Your task to perform on an android device: Toggle the flashlight Image 0: 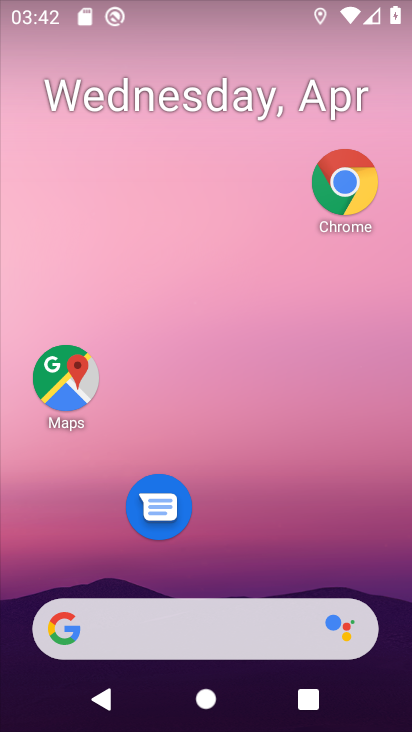
Step 0: click (280, 343)
Your task to perform on an android device: Toggle the flashlight Image 1: 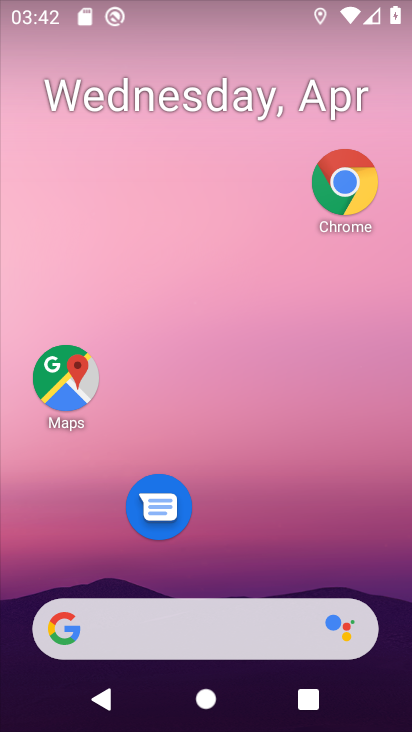
Step 1: drag from (236, 529) to (385, 5)
Your task to perform on an android device: Toggle the flashlight Image 2: 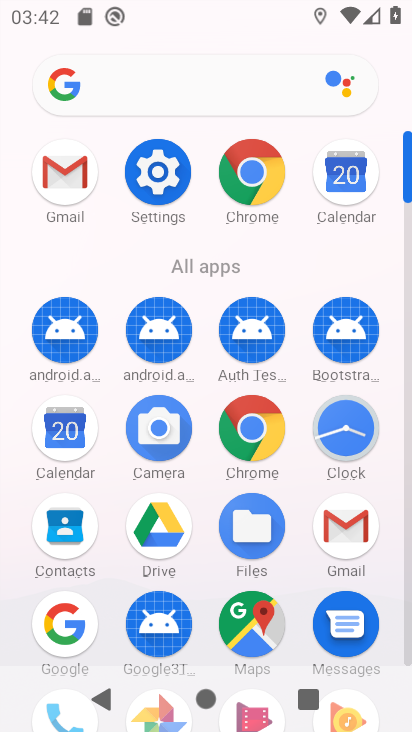
Step 2: click (158, 205)
Your task to perform on an android device: Toggle the flashlight Image 3: 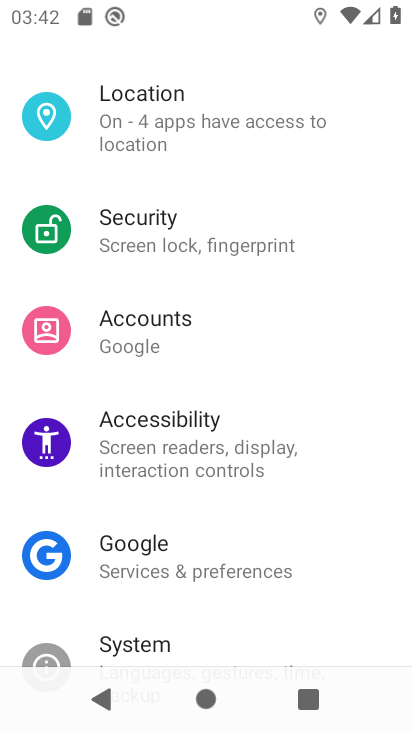
Step 3: drag from (200, 182) to (200, 381)
Your task to perform on an android device: Toggle the flashlight Image 4: 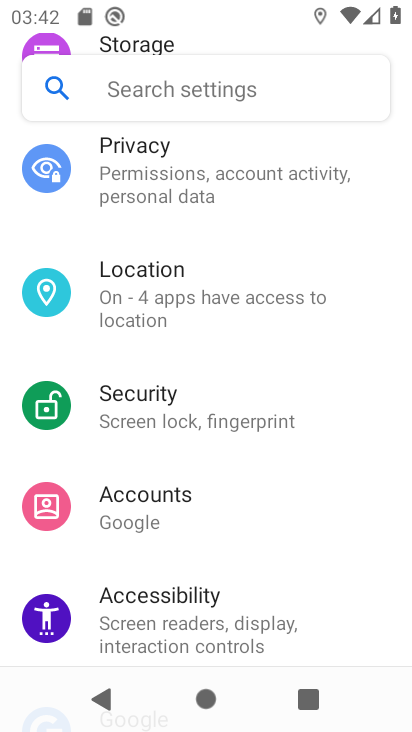
Step 4: click (200, 79)
Your task to perform on an android device: Toggle the flashlight Image 5: 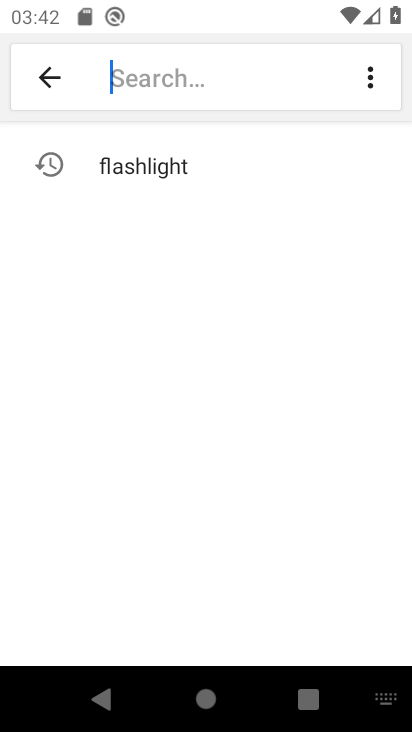
Step 5: type "flashlight"
Your task to perform on an android device: Toggle the flashlight Image 6: 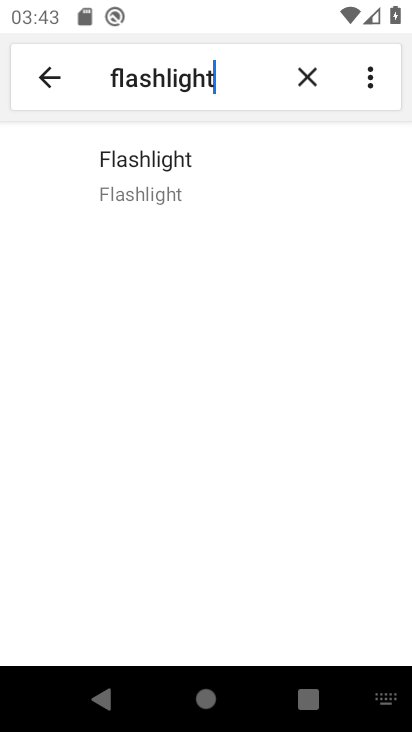
Step 6: click (178, 171)
Your task to perform on an android device: Toggle the flashlight Image 7: 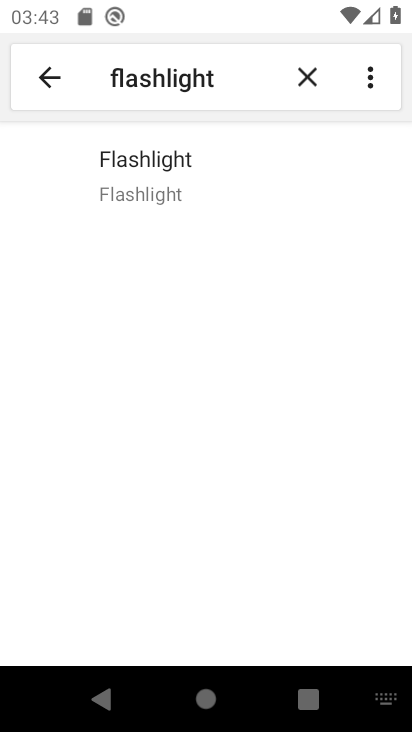
Step 7: click (208, 185)
Your task to perform on an android device: Toggle the flashlight Image 8: 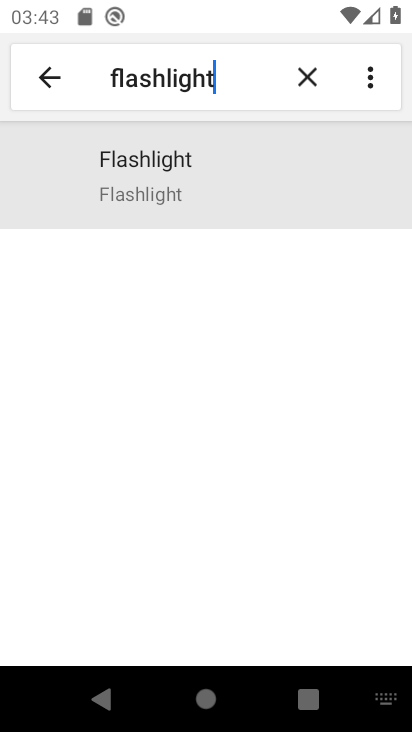
Step 8: task complete